Your task to perform on an android device: Find the nearest grocery store Image 0: 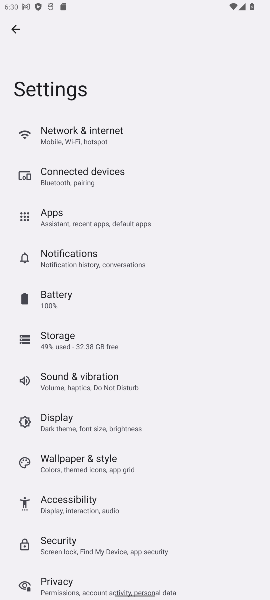
Step 0: press home button
Your task to perform on an android device: Find the nearest grocery store Image 1: 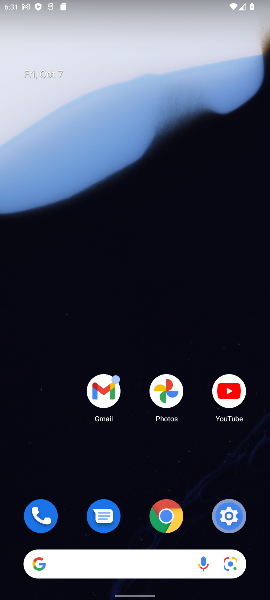
Step 1: click (107, 564)
Your task to perform on an android device: Find the nearest grocery store Image 2: 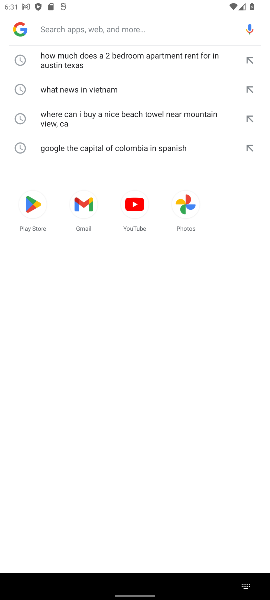
Step 2: type "Find the nearest grocery store"
Your task to perform on an android device: Find the nearest grocery store Image 3: 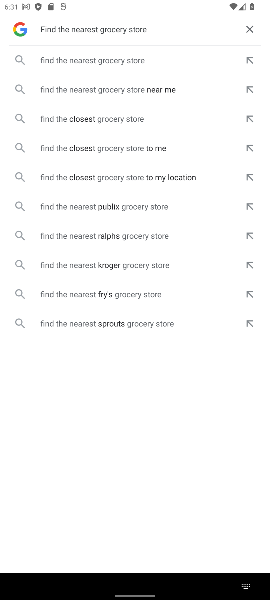
Step 3: click (93, 64)
Your task to perform on an android device: Find the nearest grocery store Image 4: 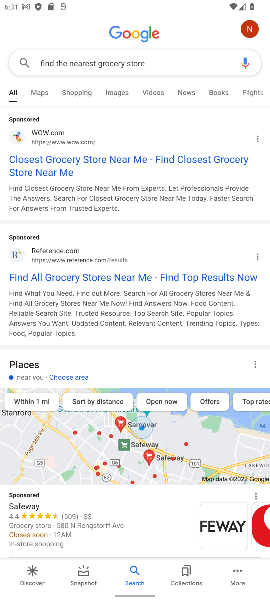
Step 4: click (84, 165)
Your task to perform on an android device: Find the nearest grocery store Image 5: 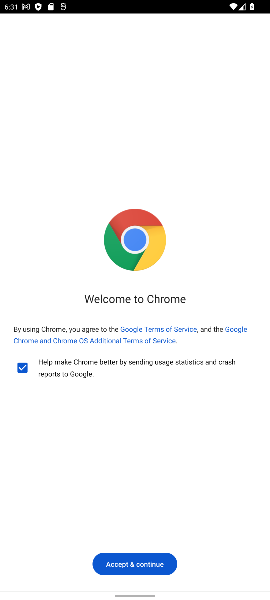
Step 5: click (138, 554)
Your task to perform on an android device: Find the nearest grocery store Image 6: 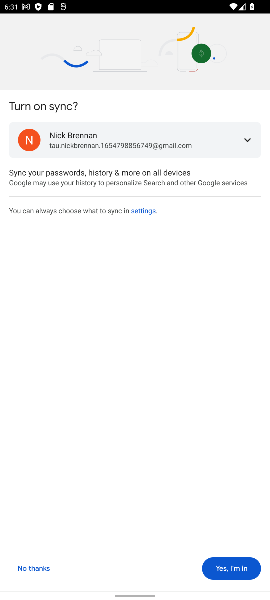
Step 6: click (219, 575)
Your task to perform on an android device: Find the nearest grocery store Image 7: 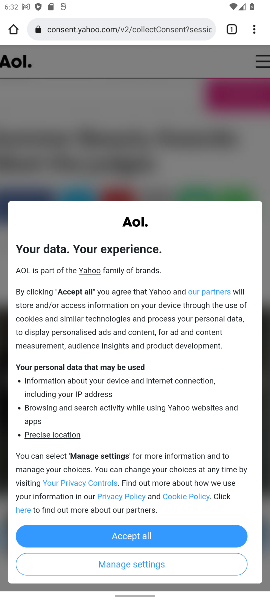
Step 7: click (211, 535)
Your task to perform on an android device: Find the nearest grocery store Image 8: 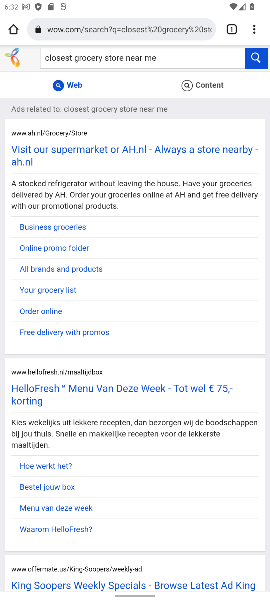
Step 8: task complete